Your task to perform on an android device: Open wifi settings Image 0: 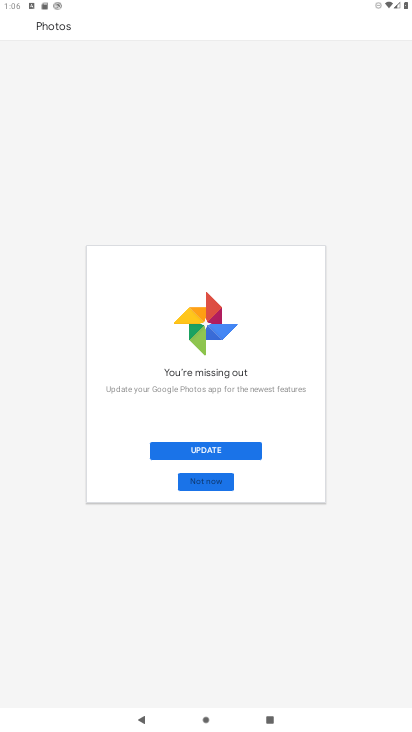
Step 0: press home button
Your task to perform on an android device: Open wifi settings Image 1: 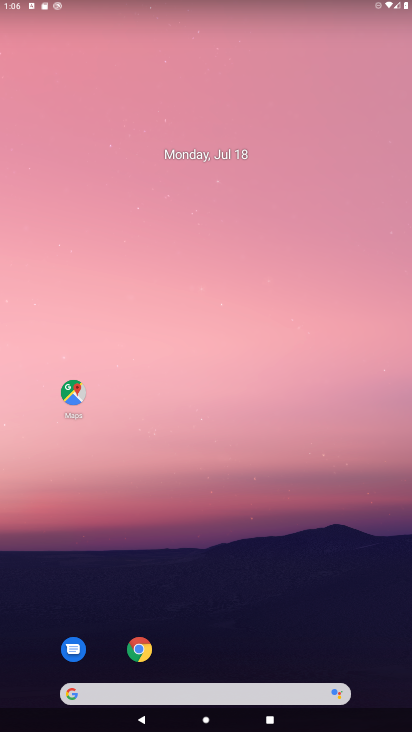
Step 1: drag from (313, 650) to (269, 166)
Your task to perform on an android device: Open wifi settings Image 2: 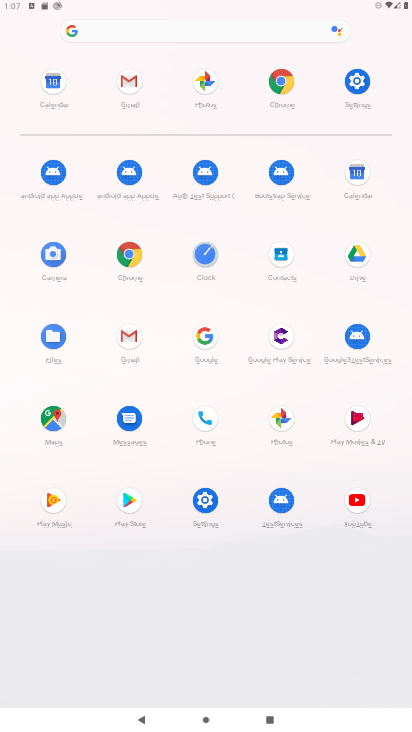
Step 2: click (203, 499)
Your task to perform on an android device: Open wifi settings Image 3: 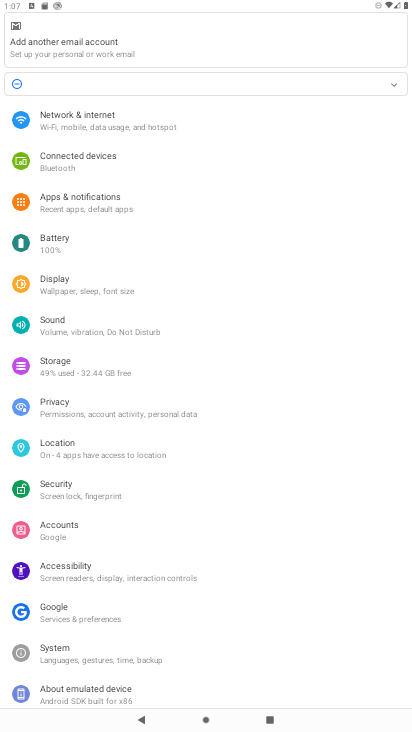
Step 3: click (69, 113)
Your task to perform on an android device: Open wifi settings Image 4: 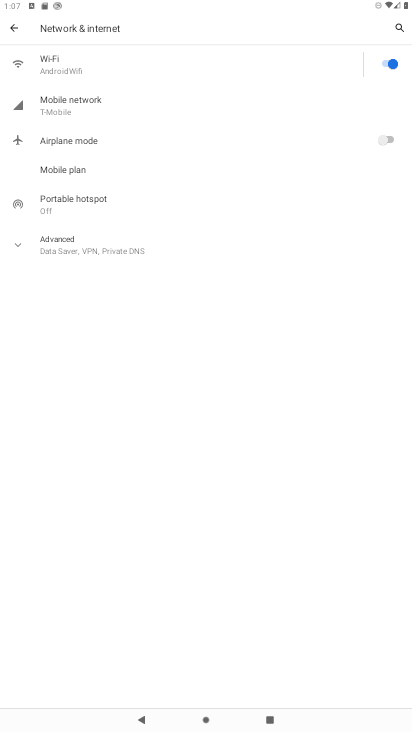
Step 4: click (46, 63)
Your task to perform on an android device: Open wifi settings Image 5: 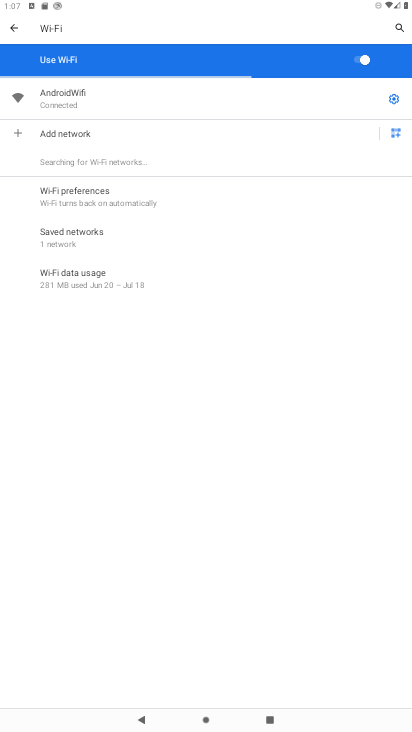
Step 5: task complete